Your task to perform on an android device: toggle sleep mode Image 0: 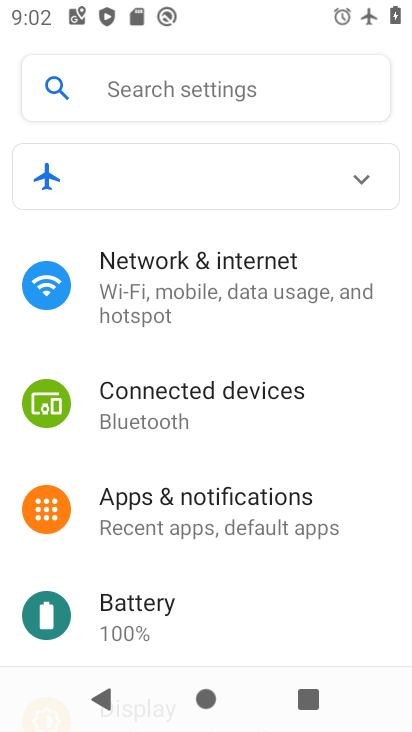
Step 0: drag from (261, 520) to (252, 138)
Your task to perform on an android device: toggle sleep mode Image 1: 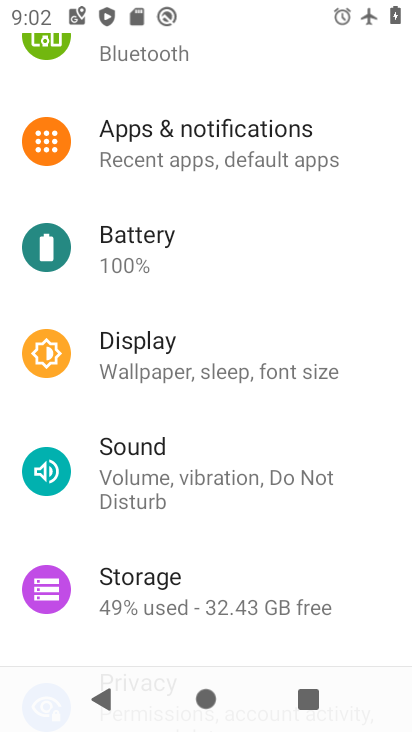
Step 1: click (114, 357)
Your task to perform on an android device: toggle sleep mode Image 2: 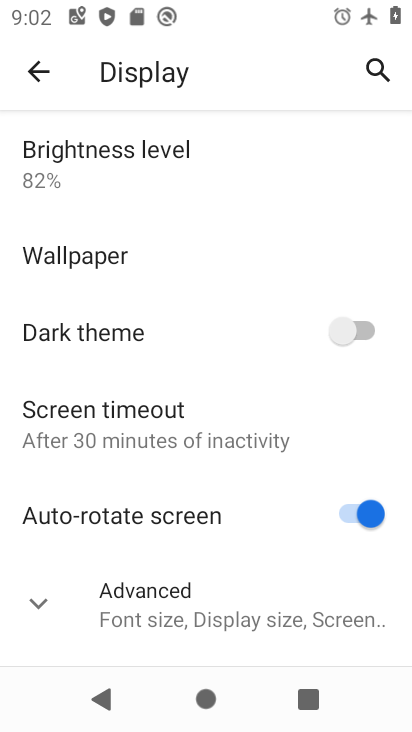
Step 2: click (33, 611)
Your task to perform on an android device: toggle sleep mode Image 3: 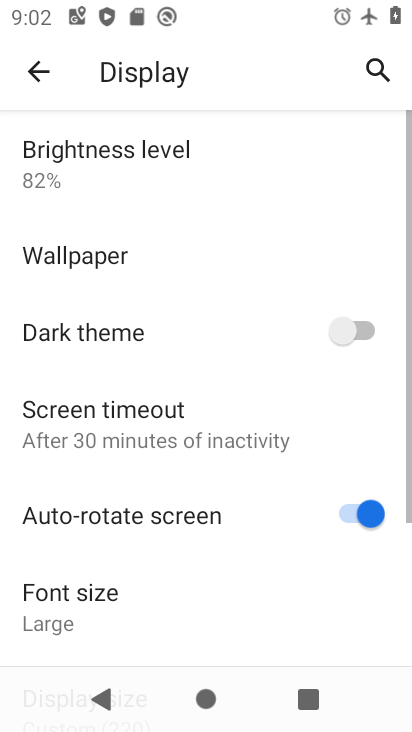
Step 3: task complete